Your task to perform on an android device: Open Wikipedia Image 0: 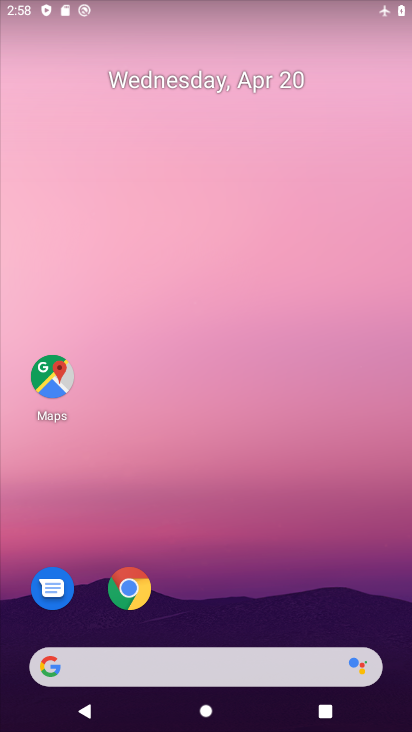
Step 0: drag from (271, 567) to (255, 16)
Your task to perform on an android device: Open Wikipedia Image 1: 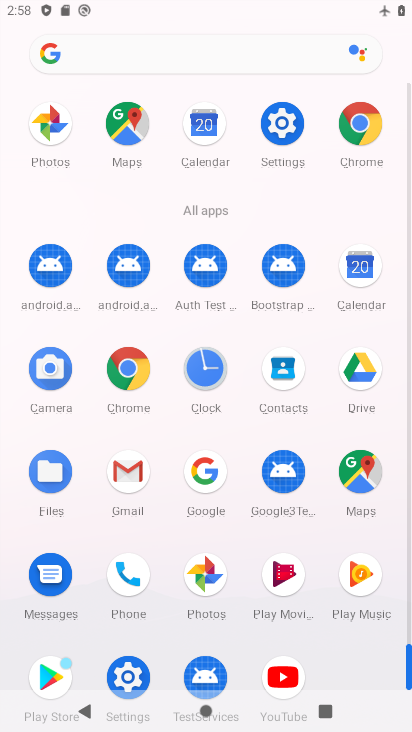
Step 1: click (126, 372)
Your task to perform on an android device: Open Wikipedia Image 2: 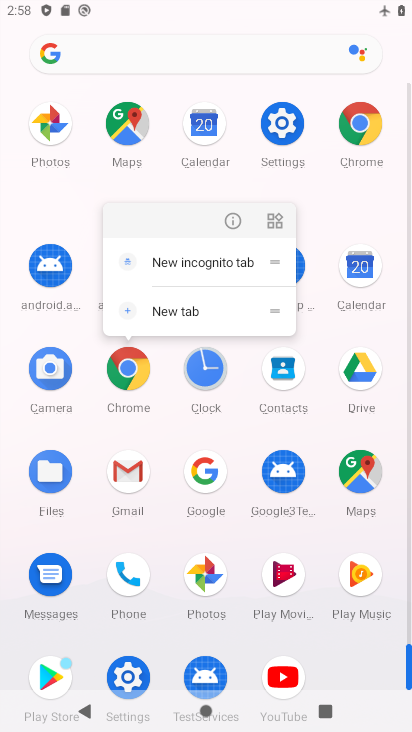
Step 2: click (126, 372)
Your task to perform on an android device: Open Wikipedia Image 3: 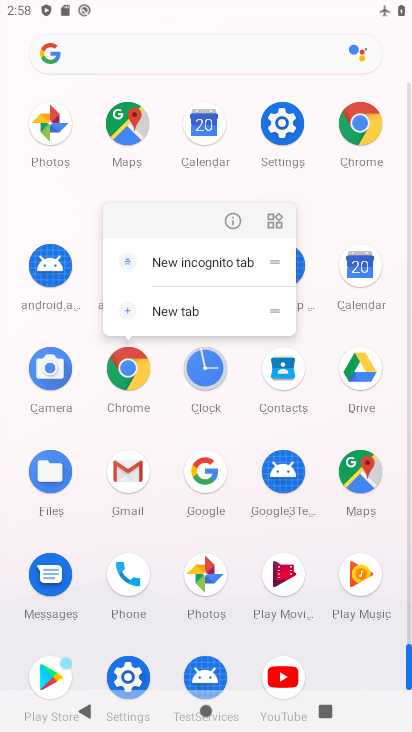
Step 3: click (109, 364)
Your task to perform on an android device: Open Wikipedia Image 4: 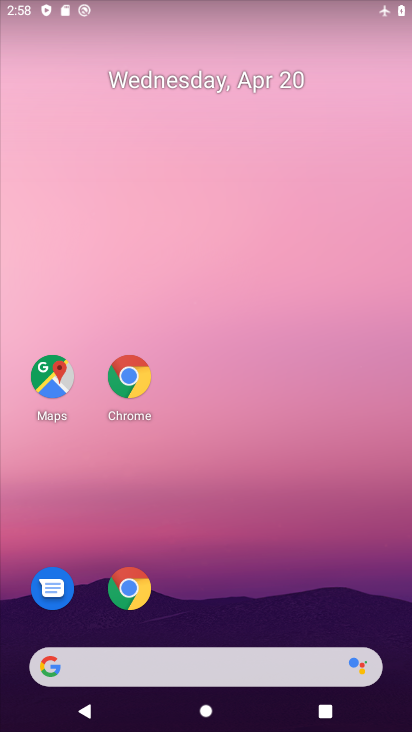
Step 4: drag from (221, 420) to (224, 267)
Your task to perform on an android device: Open Wikipedia Image 5: 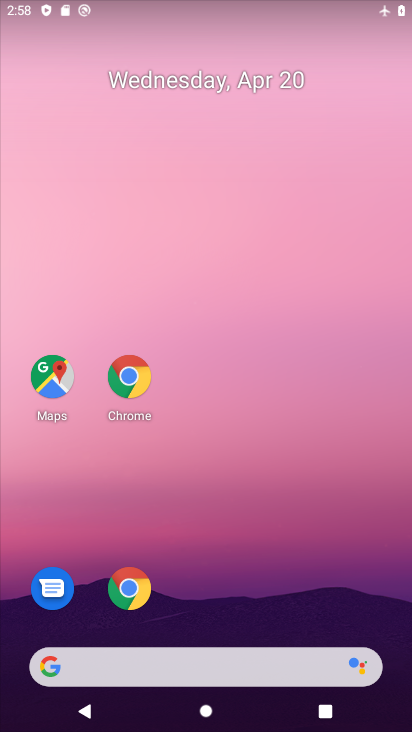
Step 5: drag from (264, 513) to (328, 108)
Your task to perform on an android device: Open Wikipedia Image 6: 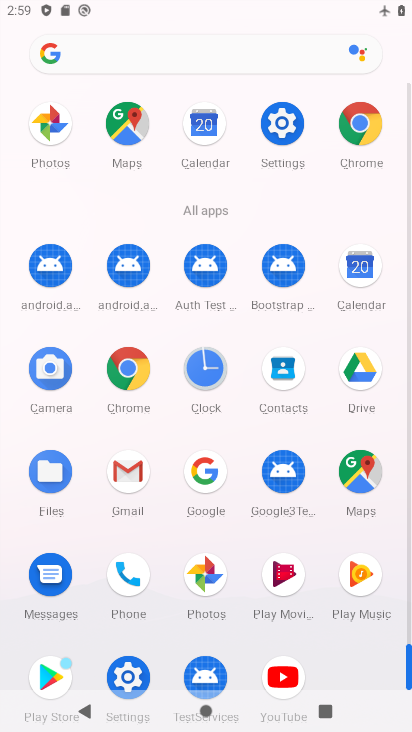
Step 6: click (127, 368)
Your task to perform on an android device: Open Wikipedia Image 7: 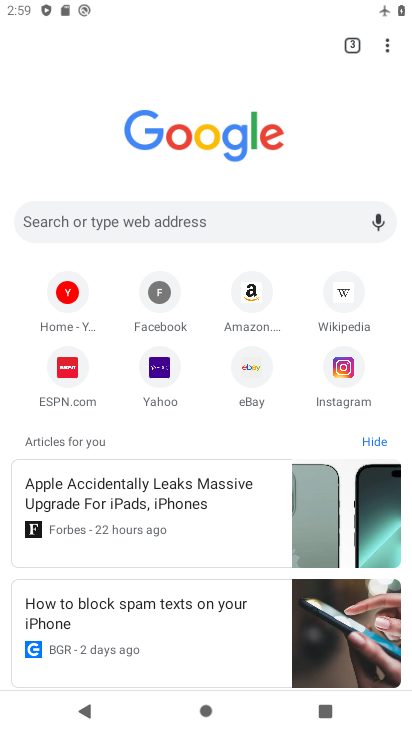
Step 7: click (156, 214)
Your task to perform on an android device: Open Wikipedia Image 8: 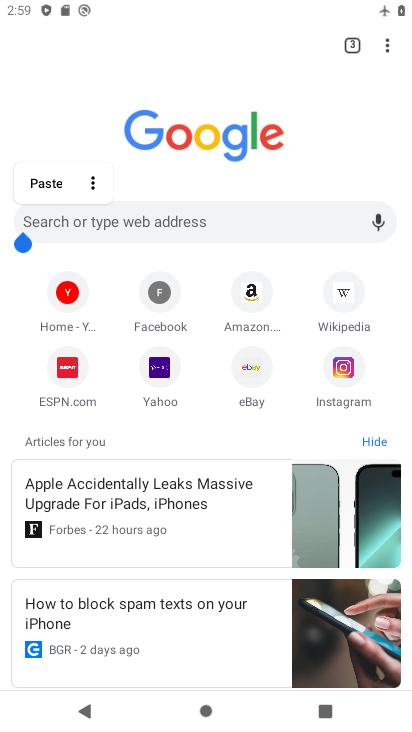
Step 8: click (147, 225)
Your task to perform on an android device: Open Wikipedia Image 9: 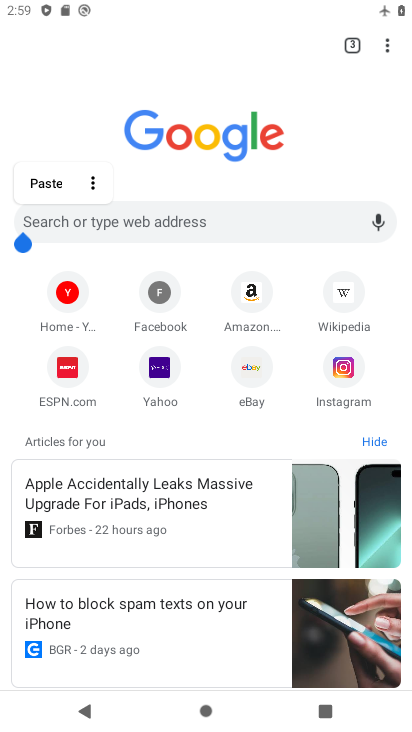
Step 9: click (356, 47)
Your task to perform on an android device: Open Wikipedia Image 10: 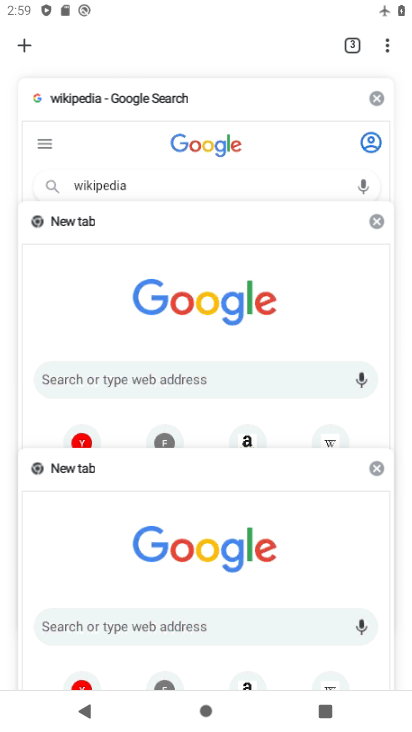
Step 10: click (113, 287)
Your task to perform on an android device: Open Wikipedia Image 11: 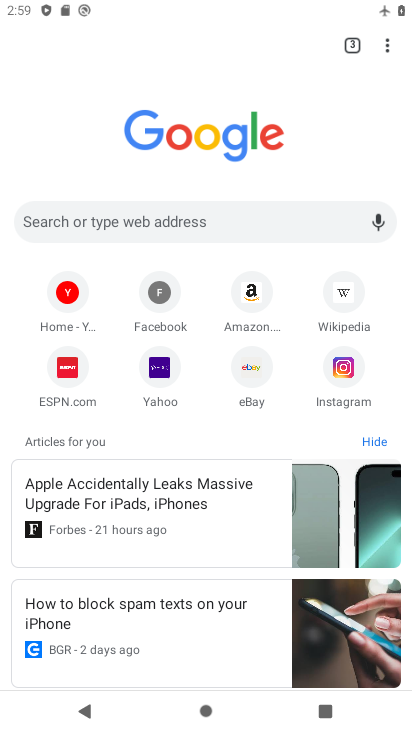
Step 11: click (357, 44)
Your task to perform on an android device: Open Wikipedia Image 12: 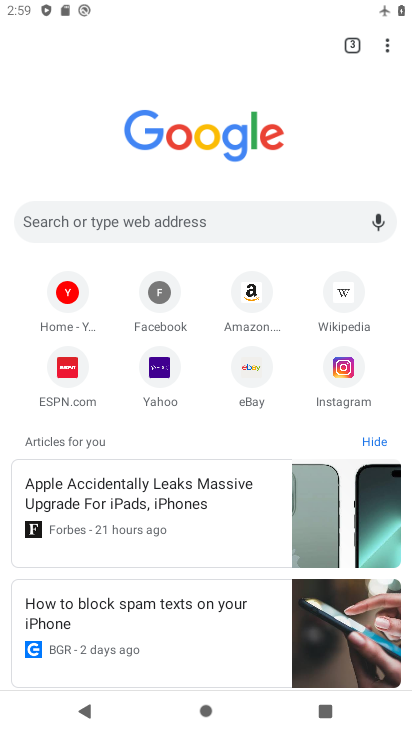
Step 12: click (353, 43)
Your task to perform on an android device: Open Wikipedia Image 13: 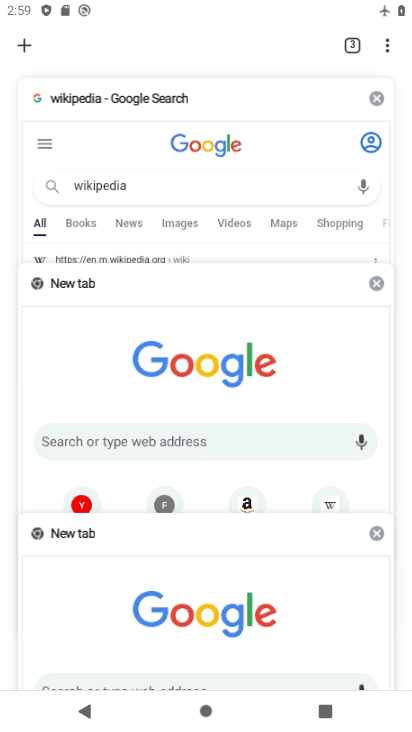
Step 13: click (160, 133)
Your task to perform on an android device: Open Wikipedia Image 14: 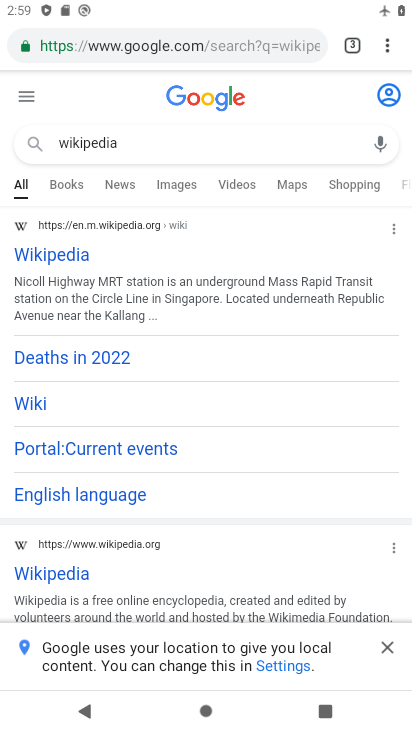
Step 14: task complete